Your task to perform on an android device: set the stopwatch Image 0: 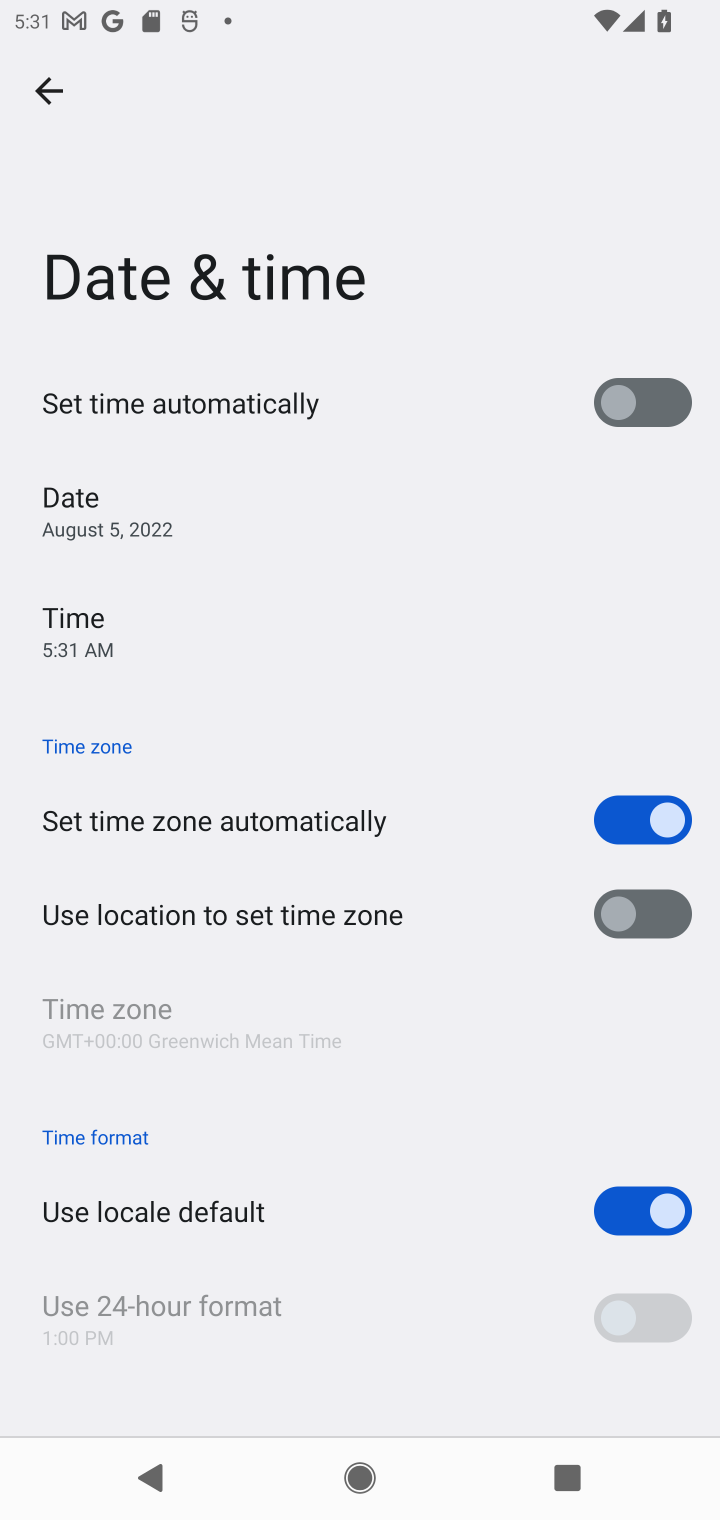
Step 0: press home button
Your task to perform on an android device: set the stopwatch Image 1: 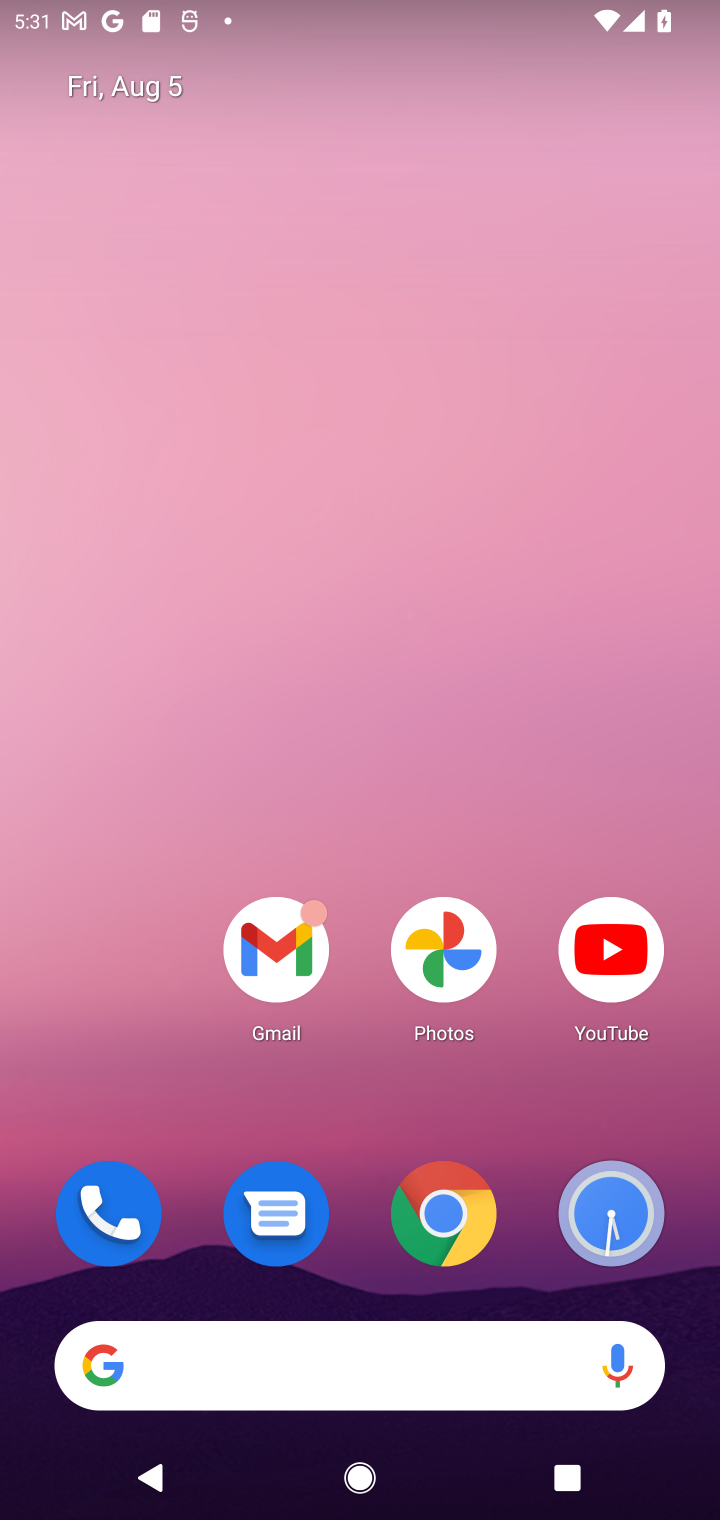
Step 1: click (614, 1208)
Your task to perform on an android device: set the stopwatch Image 2: 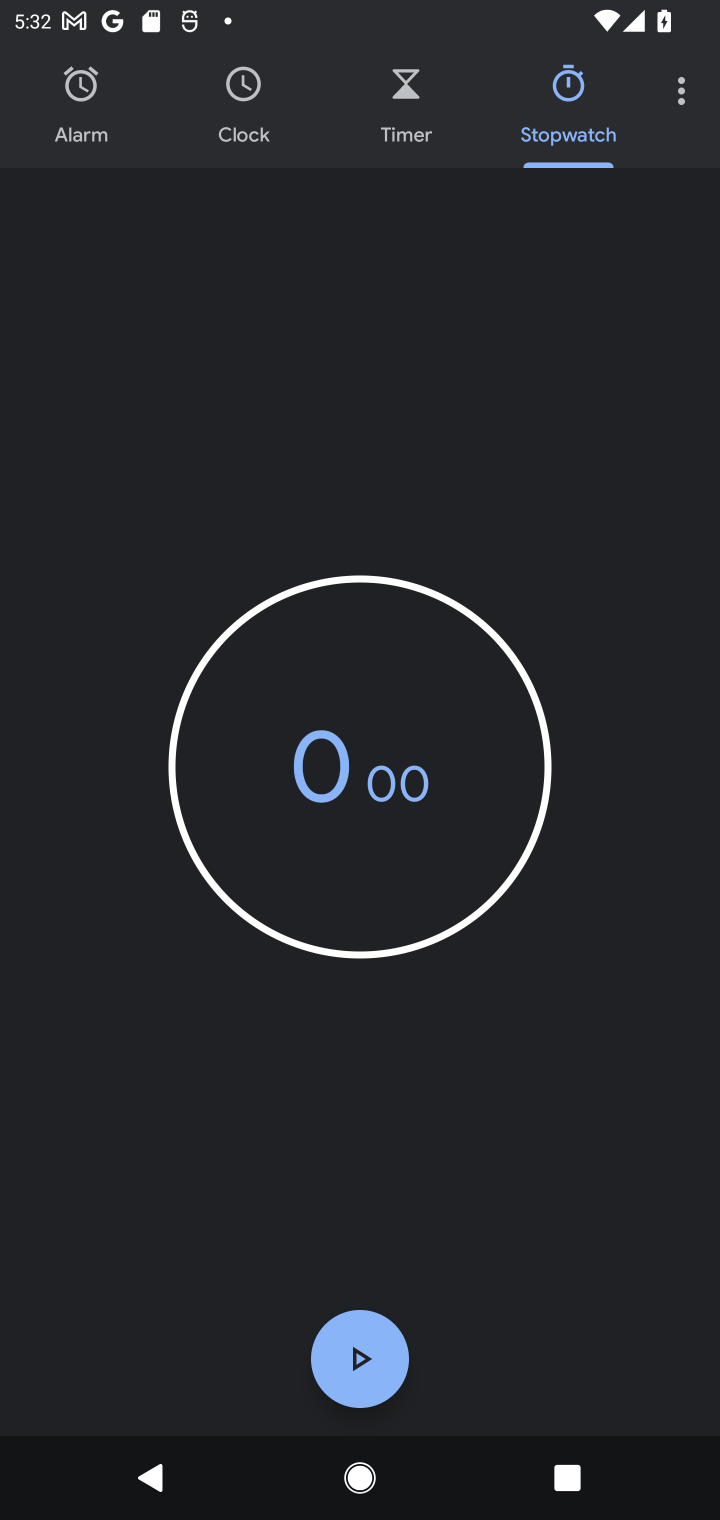
Step 2: task complete